Your task to perform on an android device: Open Google Maps Image 0: 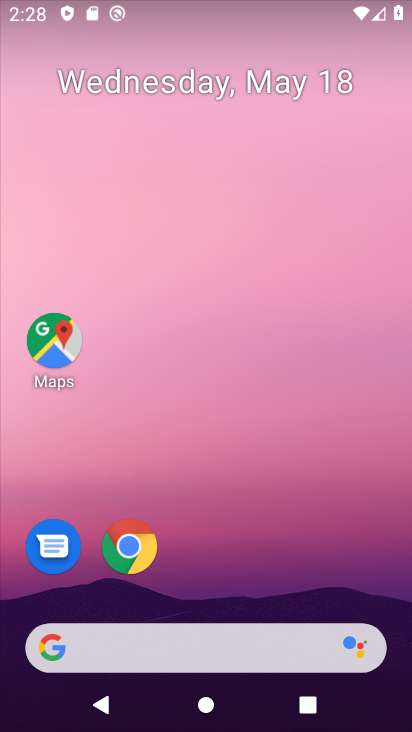
Step 0: drag from (222, 723) to (222, 108)
Your task to perform on an android device: Open Google Maps Image 1: 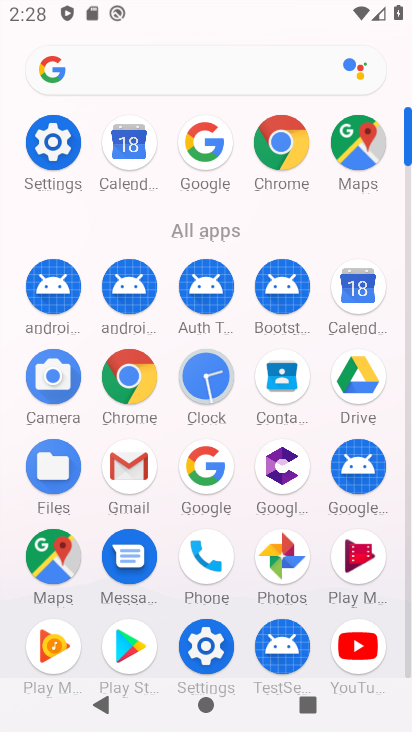
Step 1: click (55, 551)
Your task to perform on an android device: Open Google Maps Image 2: 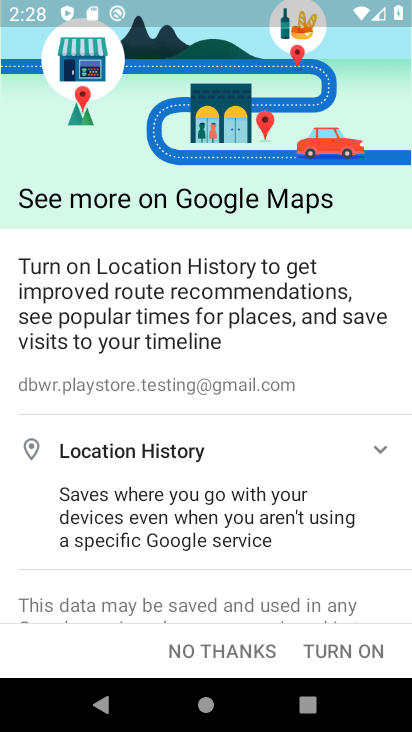
Step 2: click (323, 646)
Your task to perform on an android device: Open Google Maps Image 3: 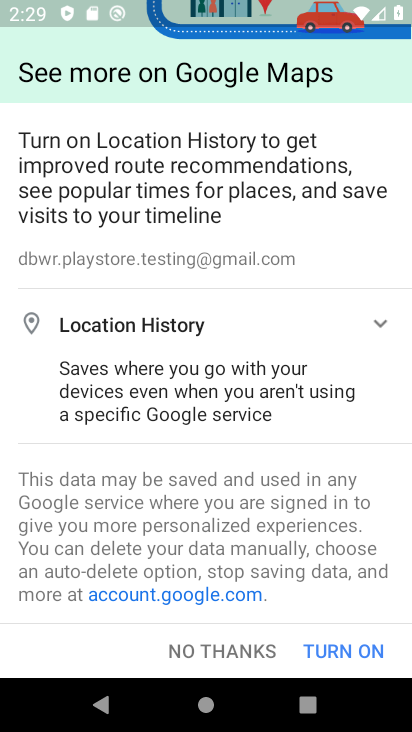
Step 3: click (323, 646)
Your task to perform on an android device: Open Google Maps Image 4: 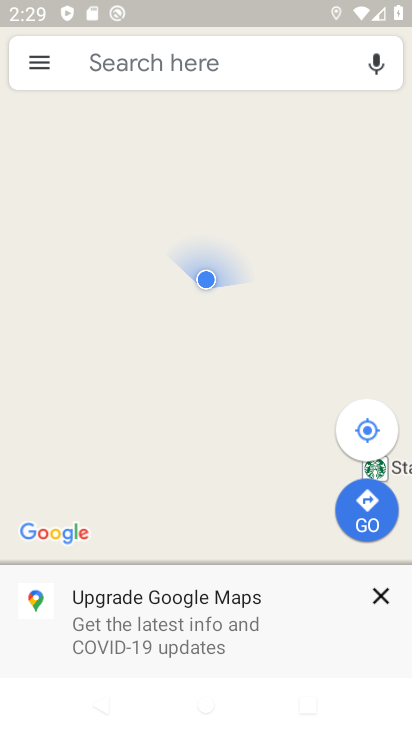
Step 4: task complete